Your task to perform on an android device: toggle improve location accuracy Image 0: 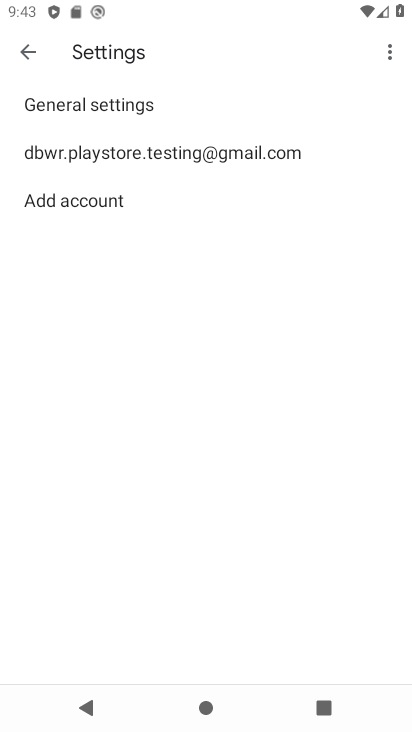
Step 0: press back button
Your task to perform on an android device: toggle improve location accuracy Image 1: 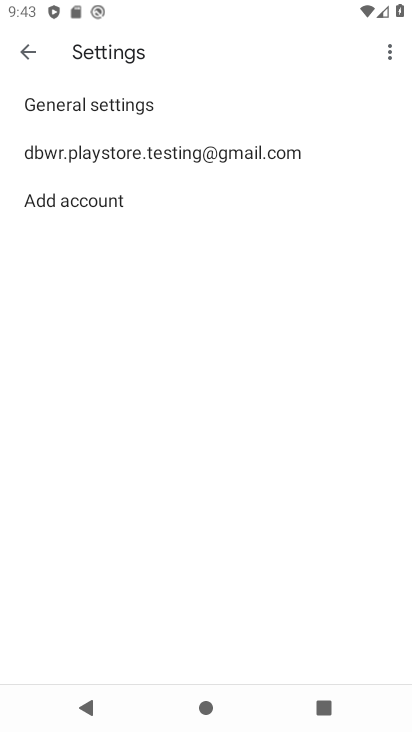
Step 1: press back button
Your task to perform on an android device: toggle improve location accuracy Image 2: 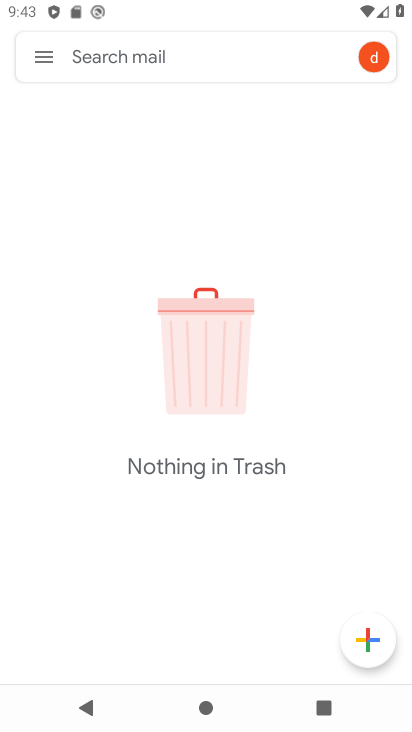
Step 2: press home button
Your task to perform on an android device: toggle improve location accuracy Image 3: 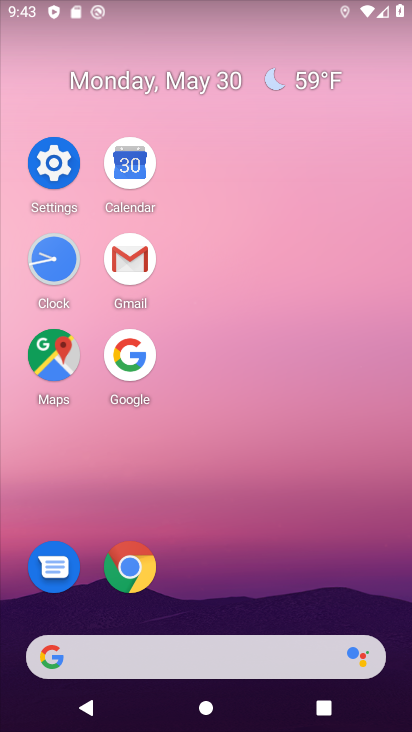
Step 3: click (52, 174)
Your task to perform on an android device: toggle improve location accuracy Image 4: 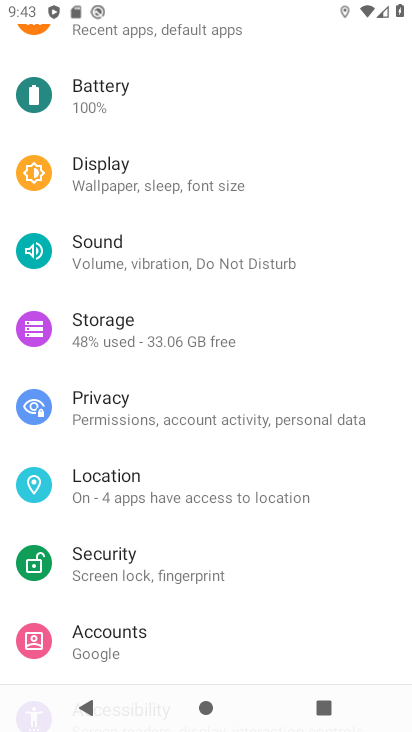
Step 4: click (251, 520)
Your task to perform on an android device: toggle improve location accuracy Image 5: 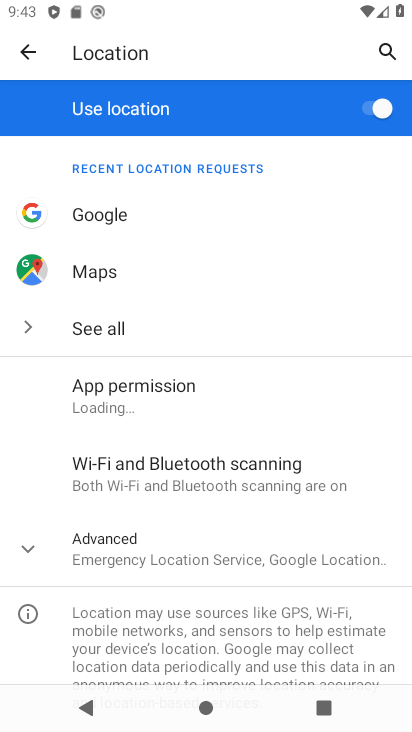
Step 5: click (246, 533)
Your task to perform on an android device: toggle improve location accuracy Image 6: 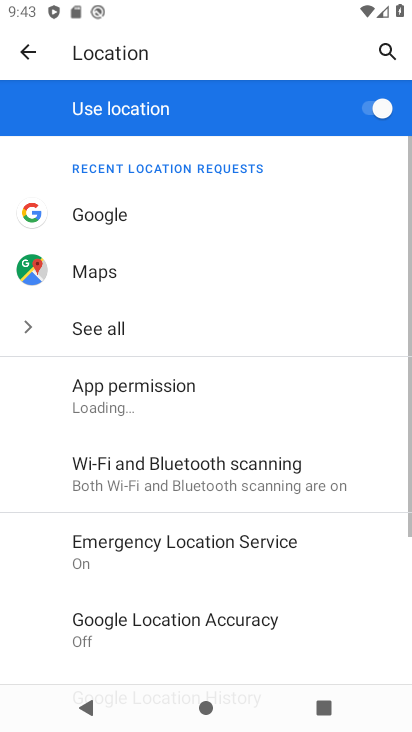
Step 6: drag from (246, 533) to (223, 124)
Your task to perform on an android device: toggle improve location accuracy Image 7: 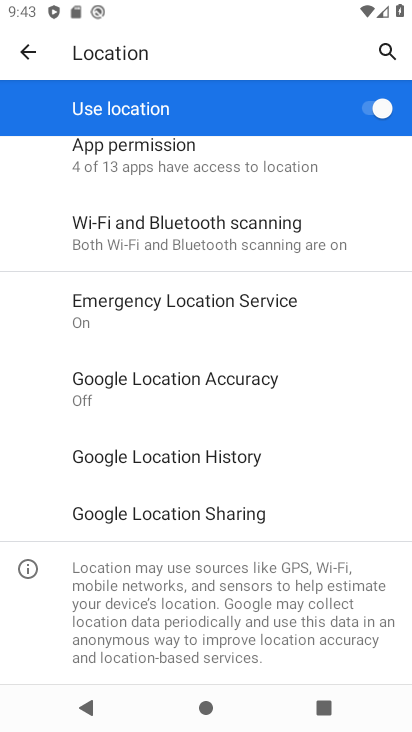
Step 7: click (243, 387)
Your task to perform on an android device: toggle improve location accuracy Image 8: 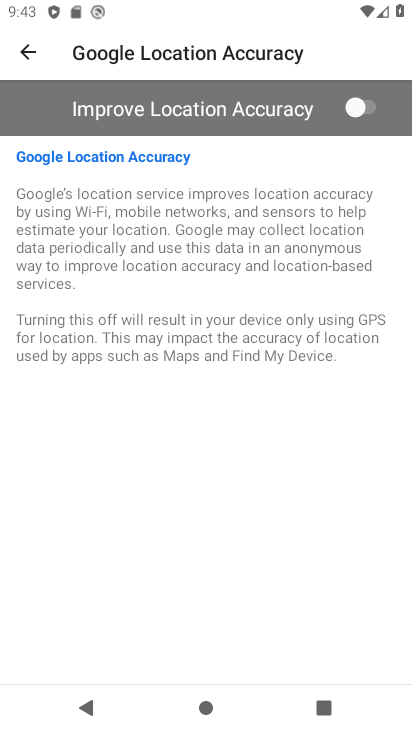
Step 8: click (366, 113)
Your task to perform on an android device: toggle improve location accuracy Image 9: 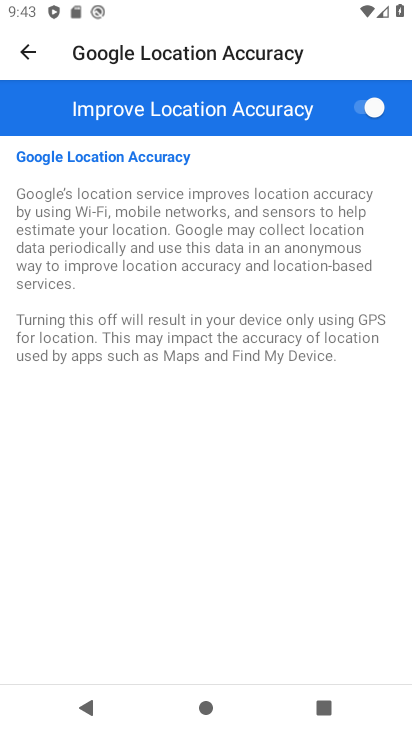
Step 9: task complete